Your task to perform on an android device: toggle sleep mode Image 0: 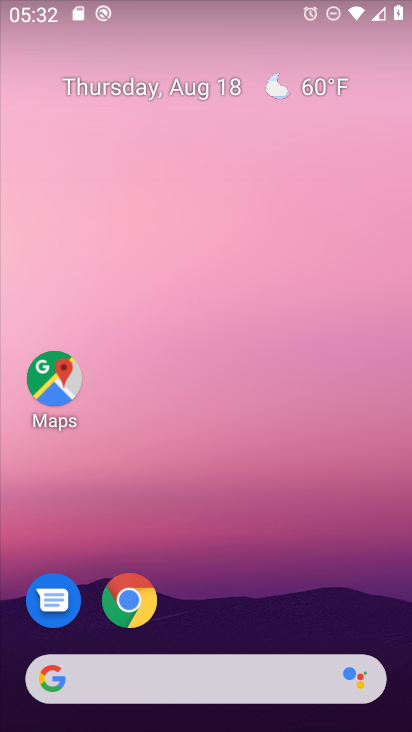
Step 0: press home button
Your task to perform on an android device: toggle sleep mode Image 1: 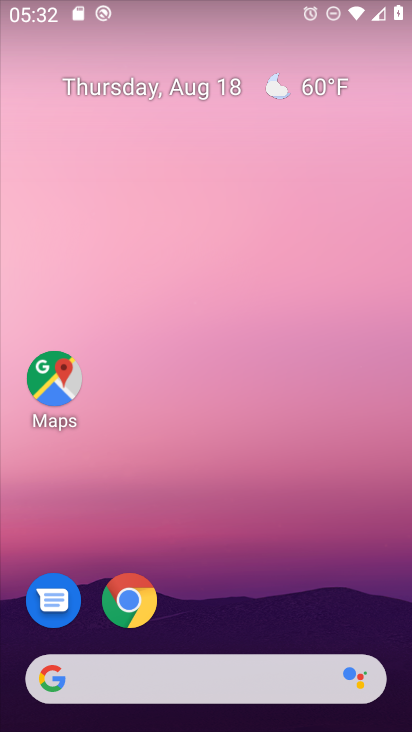
Step 1: drag from (240, 609) to (216, 67)
Your task to perform on an android device: toggle sleep mode Image 2: 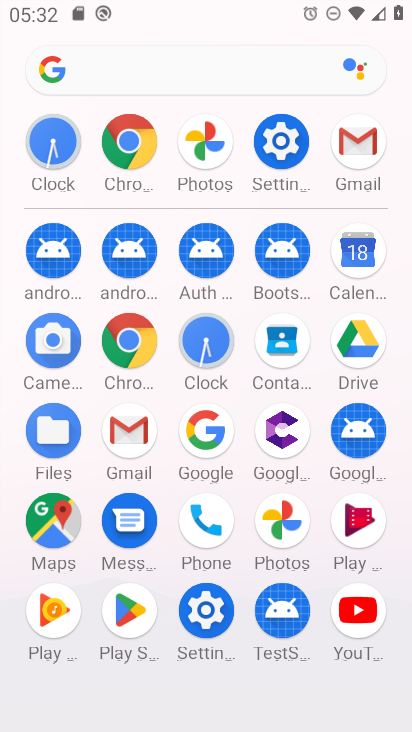
Step 2: click (278, 142)
Your task to perform on an android device: toggle sleep mode Image 3: 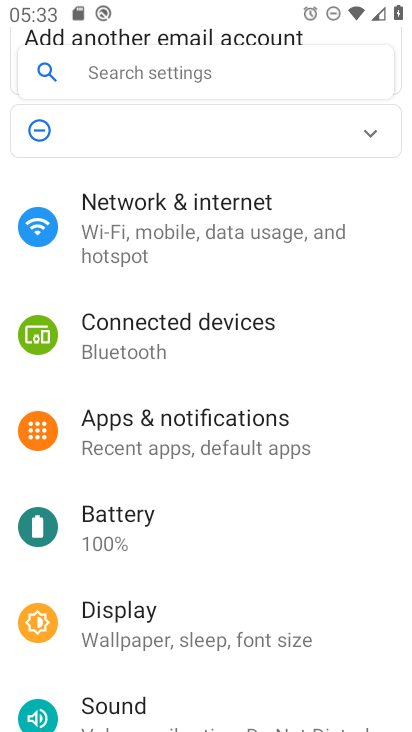
Step 3: click (140, 622)
Your task to perform on an android device: toggle sleep mode Image 4: 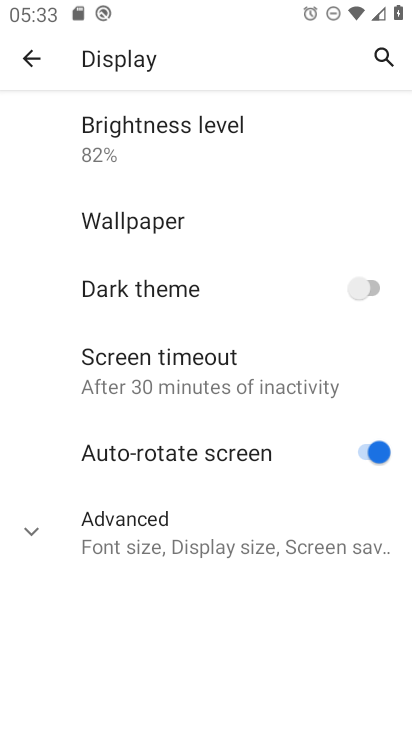
Step 4: task complete